Your task to perform on an android device: Open maps Image 0: 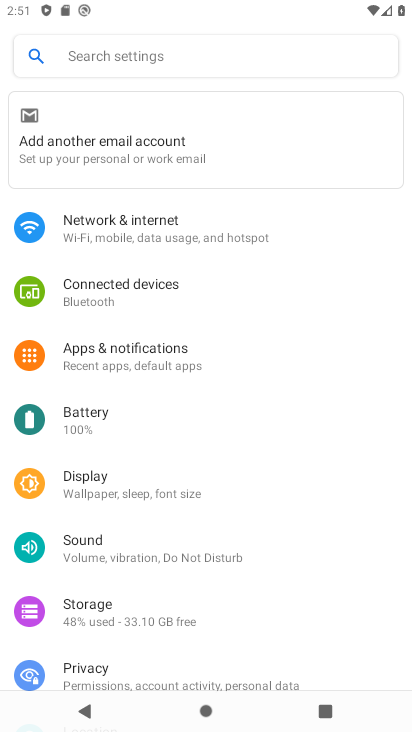
Step 0: press home button
Your task to perform on an android device: Open maps Image 1: 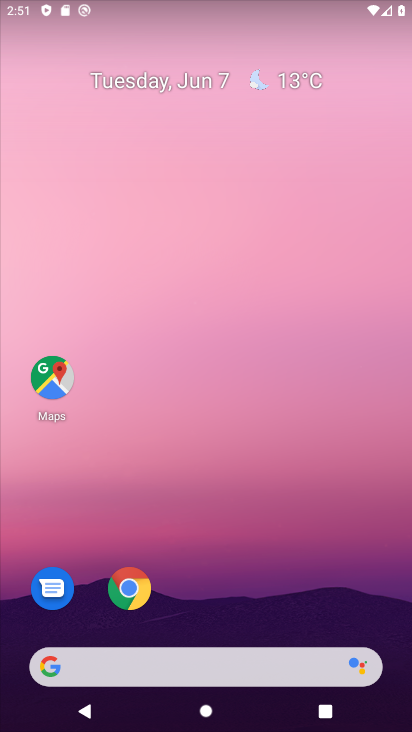
Step 1: click (56, 371)
Your task to perform on an android device: Open maps Image 2: 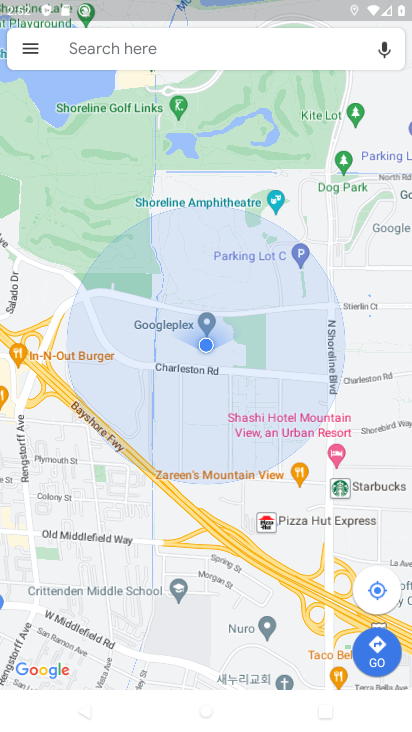
Step 2: task complete